Your task to perform on an android device: change the upload size in google photos Image 0: 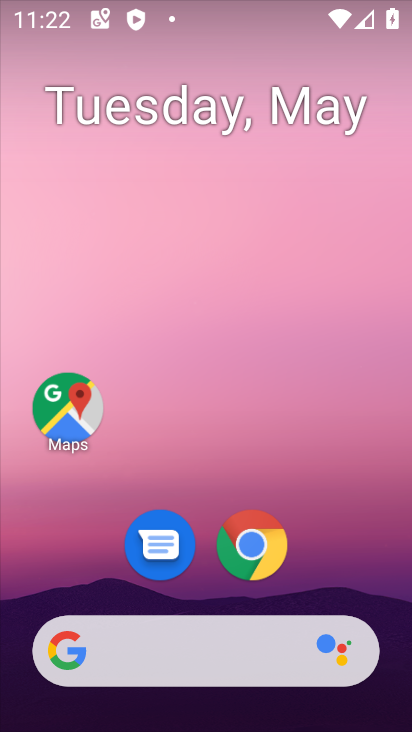
Step 0: drag from (254, 348) to (247, 35)
Your task to perform on an android device: change the upload size in google photos Image 1: 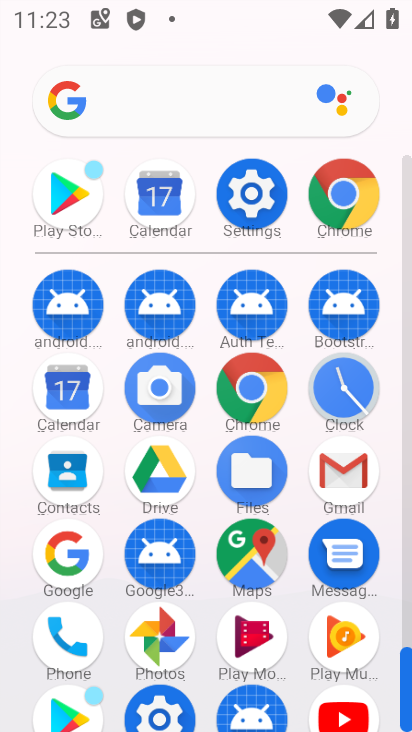
Step 1: drag from (250, 357) to (244, 279)
Your task to perform on an android device: change the upload size in google photos Image 2: 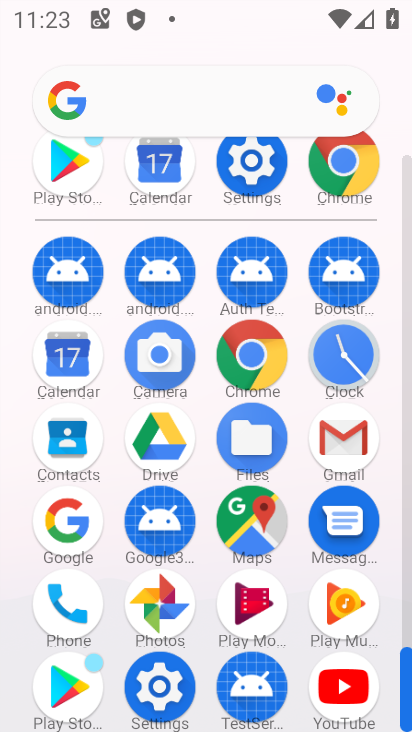
Step 2: click (167, 611)
Your task to perform on an android device: change the upload size in google photos Image 3: 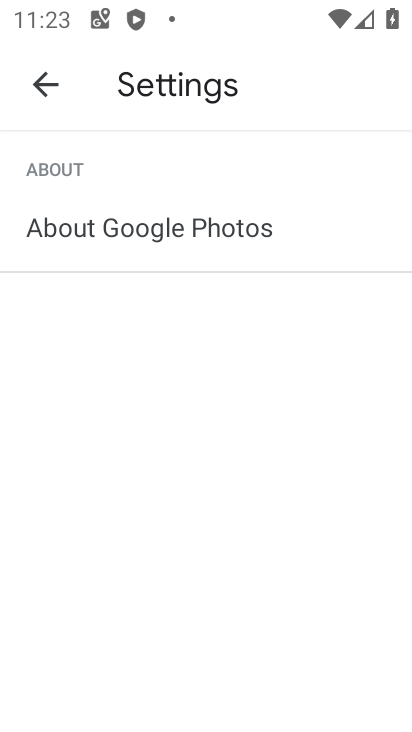
Step 3: click (38, 94)
Your task to perform on an android device: change the upload size in google photos Image 4: 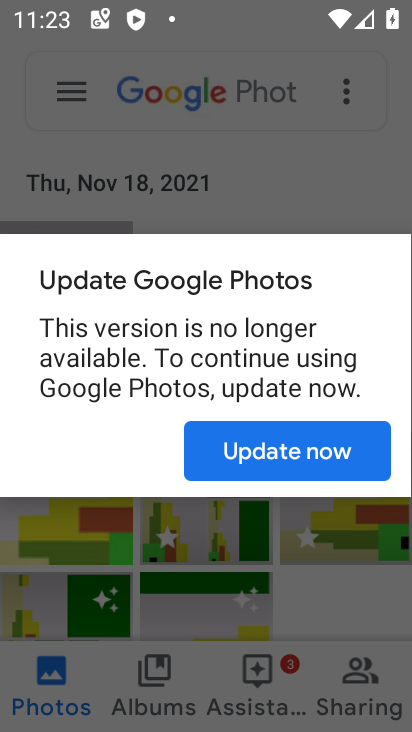
Step 4: task complete